Your task to perform on an android device: Add "logitech g933" to the cart on amazon.com, then select checkout. Image 0: 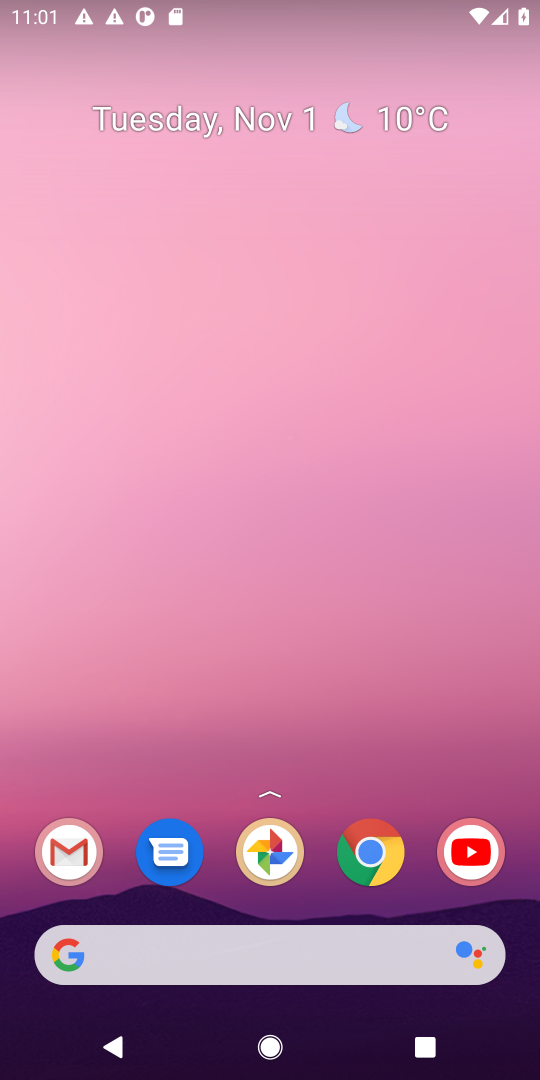
Step 0: click (57, 957)
Your task to perform on an android device: Add "logitech g933" to the cart on amazon.com, then select checkout. Image 1: 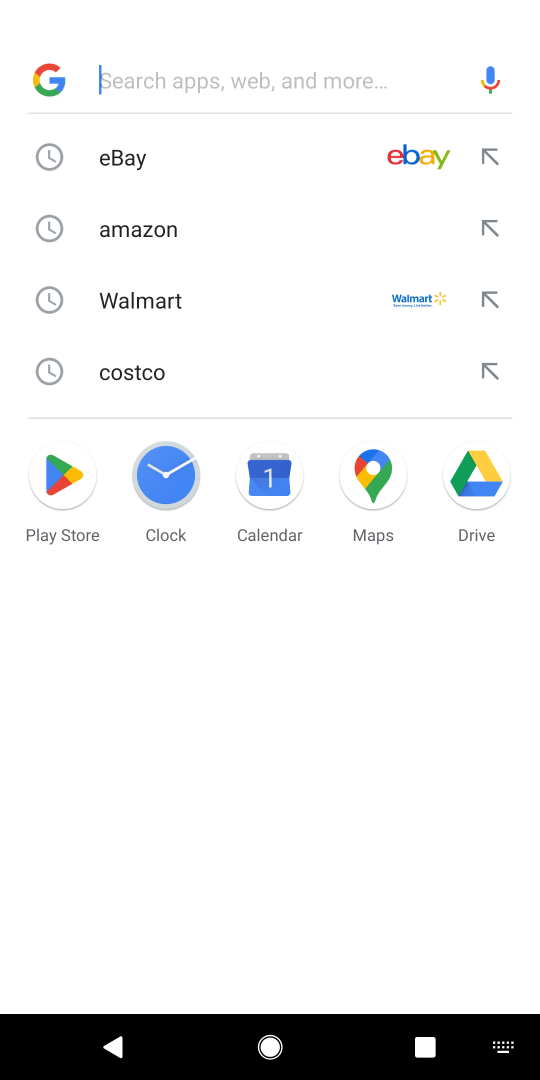
Step 1: click (133, 234)
Your task to perform on an android device: Add "logitech g933" to the cart on amazon.com, then select checkout. Image 2: 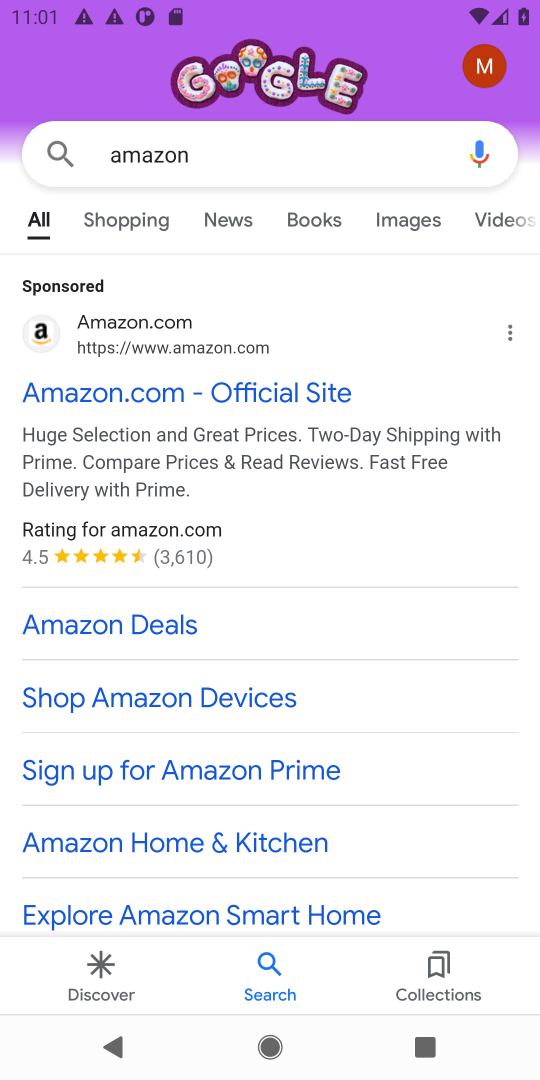
Step 2: click (273, 158)
Your task to perform on an android device: Add "logitech g933" to the cart on amazon.com, then select checkout. Image 3: 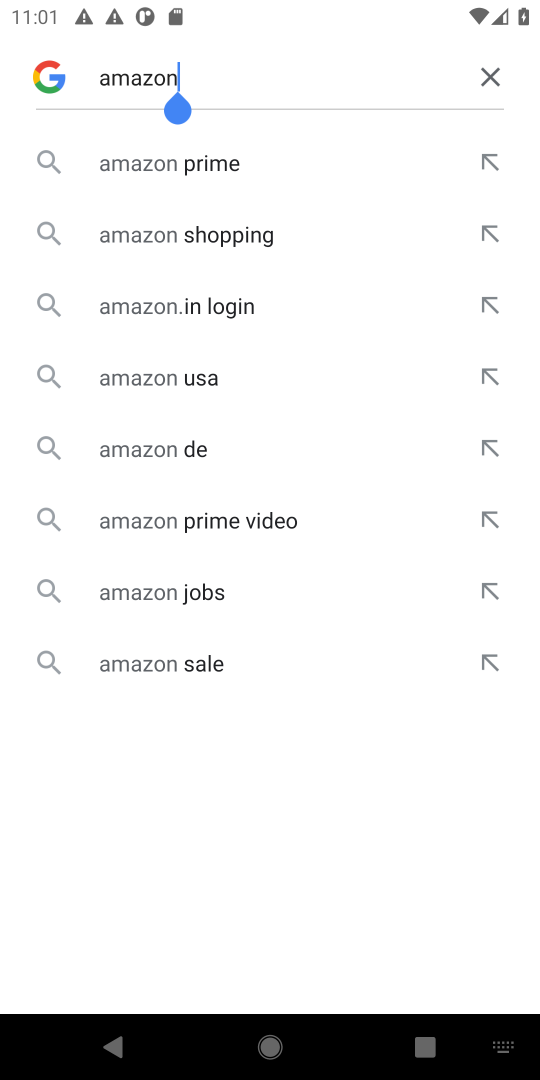
Step 3: click (486, 72)
Your task to perform on an android device: Add "logitech g933" to the cart on amazon.com, then select checkout. Image 4: 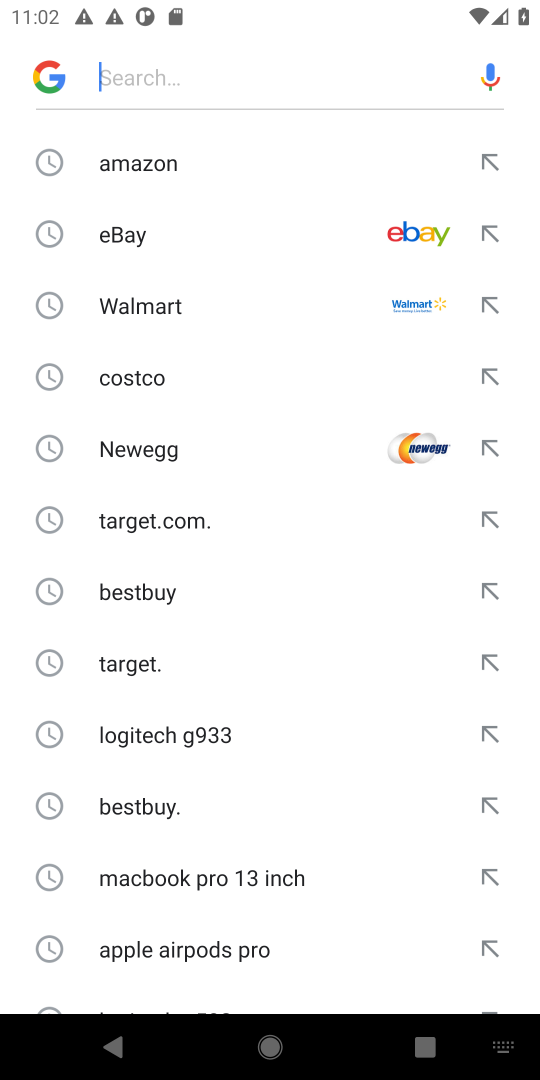
Step 4: click (113, 163)
Your task to perform on an android device: Add "logitech g933" to the cart on amazon.com, then select checkout. Image 5: 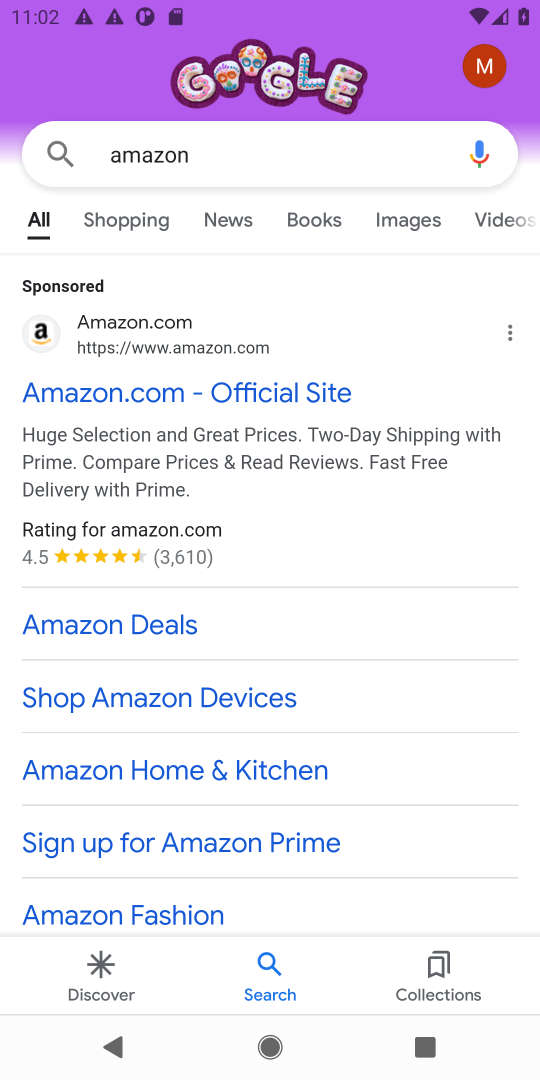
Step 5: click (152, 400)
Your task to perform on an android device: Add "logitech g933" to the cart on amazon.com, then select checkout. Image 6: 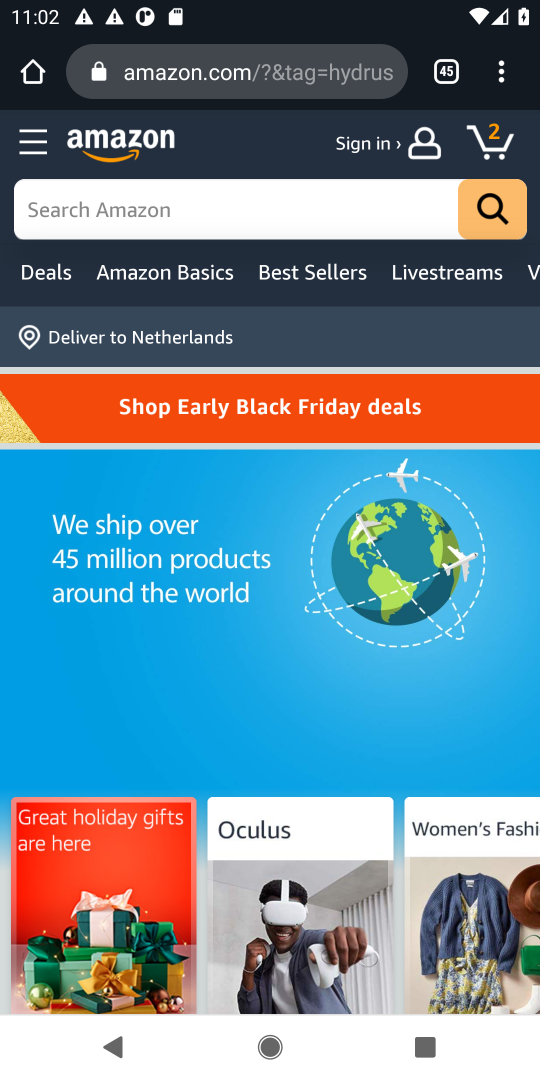
Step 6: type "logitech g933"
Your task to perform on an android device: Add "logitech g933" to the cart on amazon.com, then select checkout. Image 7: 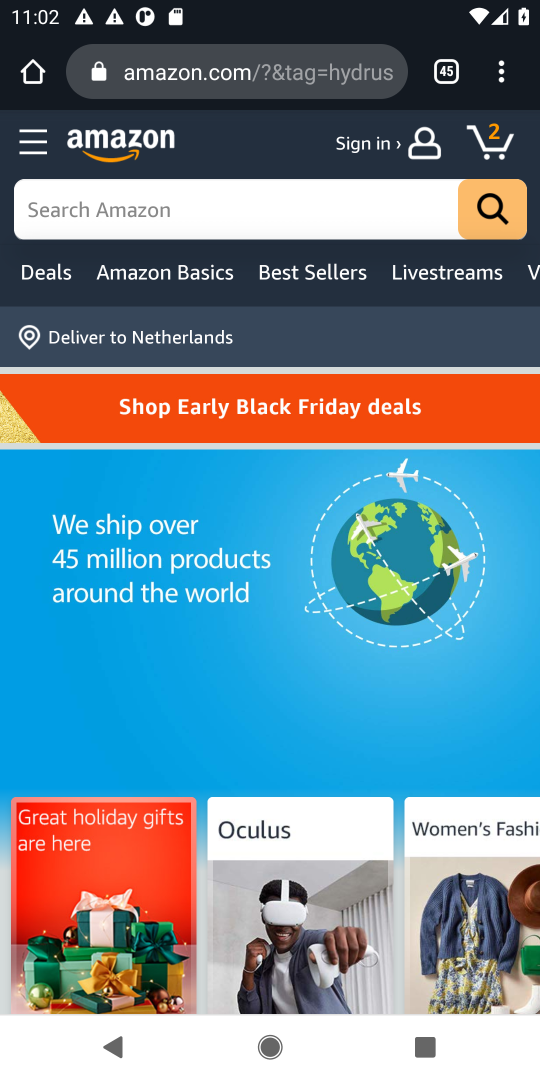
Step 7: click (60, 211)
Your task to perform on an android device: Add "logitech g933" to the cart on amazon.com, then select checkout. Image 8: 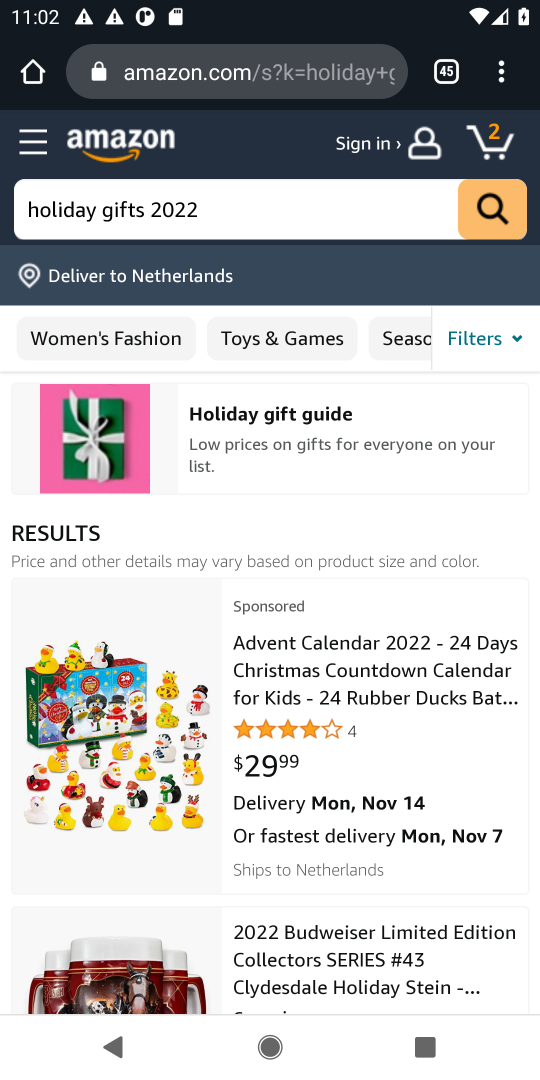
Step 8: click (181, 197)
Your task to perform on an android device: Add "logitech g933" to the cart on amazon.com, then select checkout. Image 9: 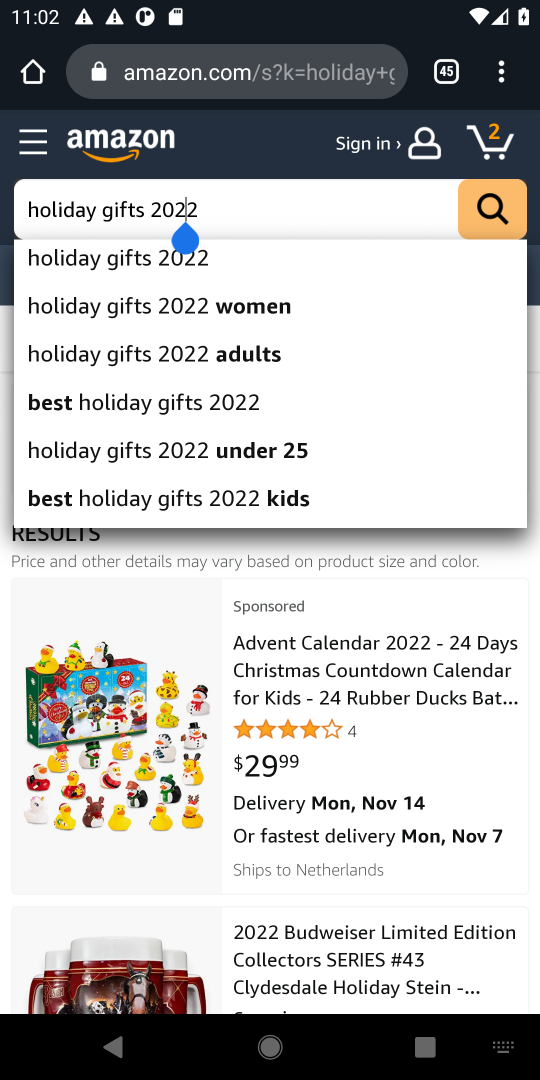
Step 9: click (204, 211)
Your task to perform on an android device: Add "logitech g933" to the cart on amazon.com, then select checkout. Image 10: 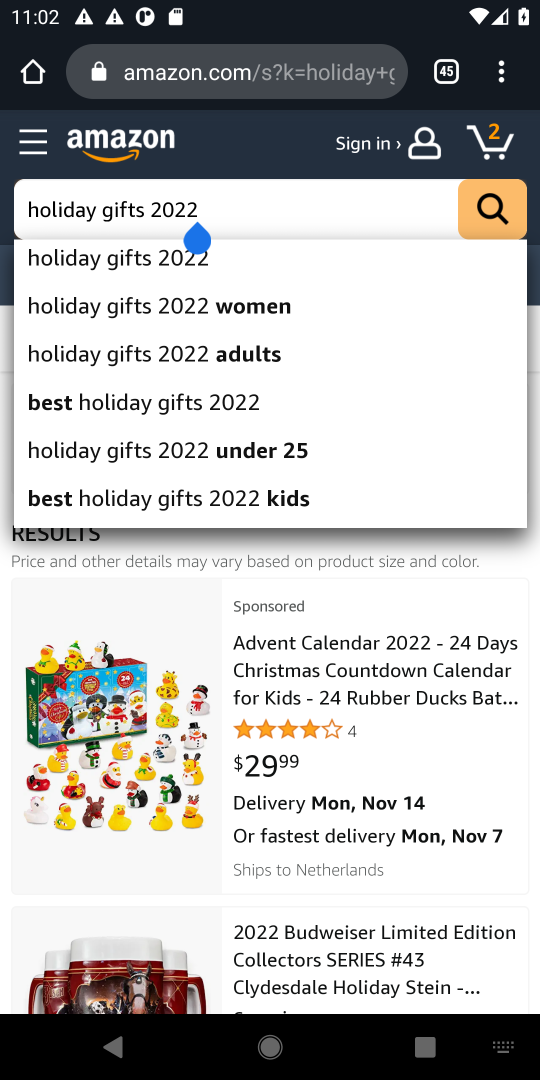
Step 10: click (182, 241)
Your task to perform on an android device: Add "logitech g933" to the cart on amazon.com, then select checkout. Image 11: 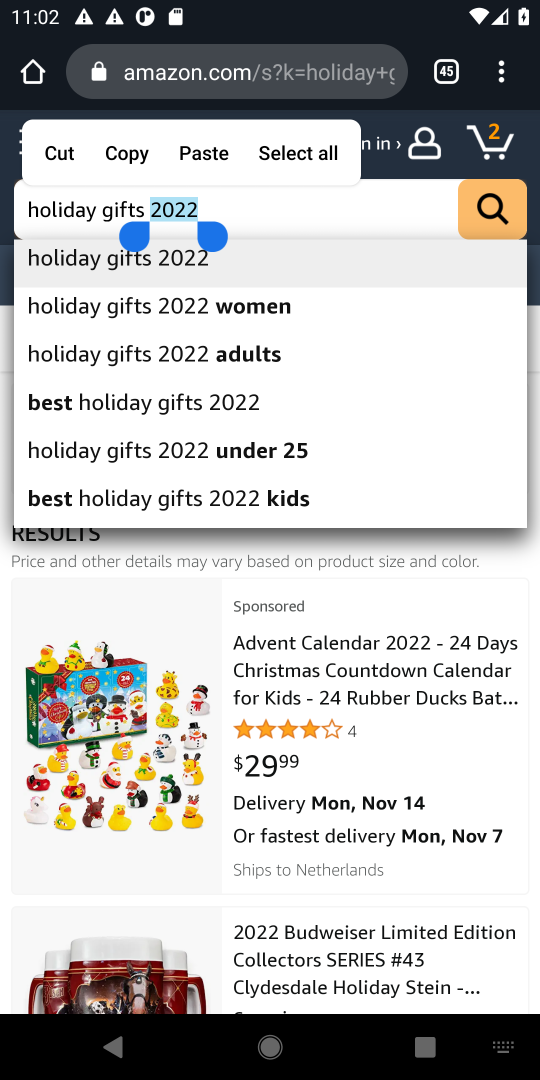
Step 11: drag from (144, 240) to (68, 236)
Your task to perform on an android device: Add "logitech g933" to the cart on amazon.com, then select checkout. Image 12: 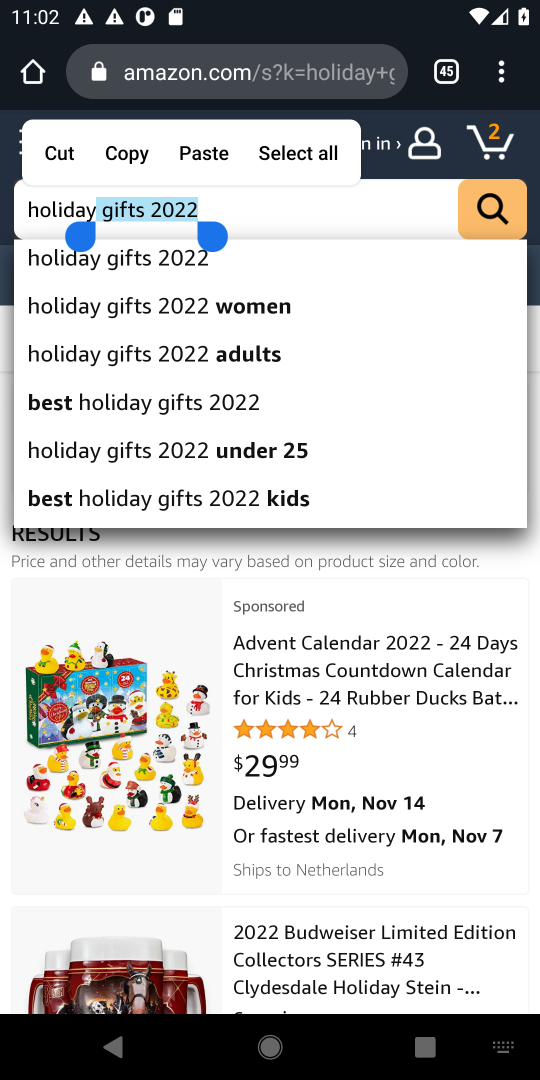
Step 12: drag from (80, 236) to (21, 213)
Your task to perform on an android device: Add "logitech g933" to the cart on amazon.com, then select checkout. Image 13: 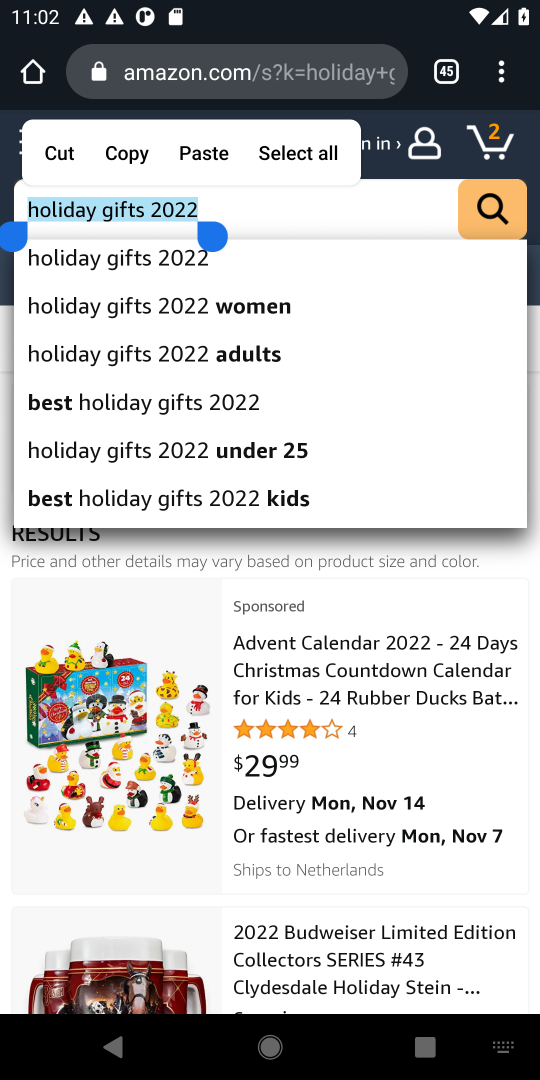
Step 13: click (60, 157)
Your task to perform on an android device: Add "logitech g933" to the cart on amazon.com, then select checkout. Image 14: 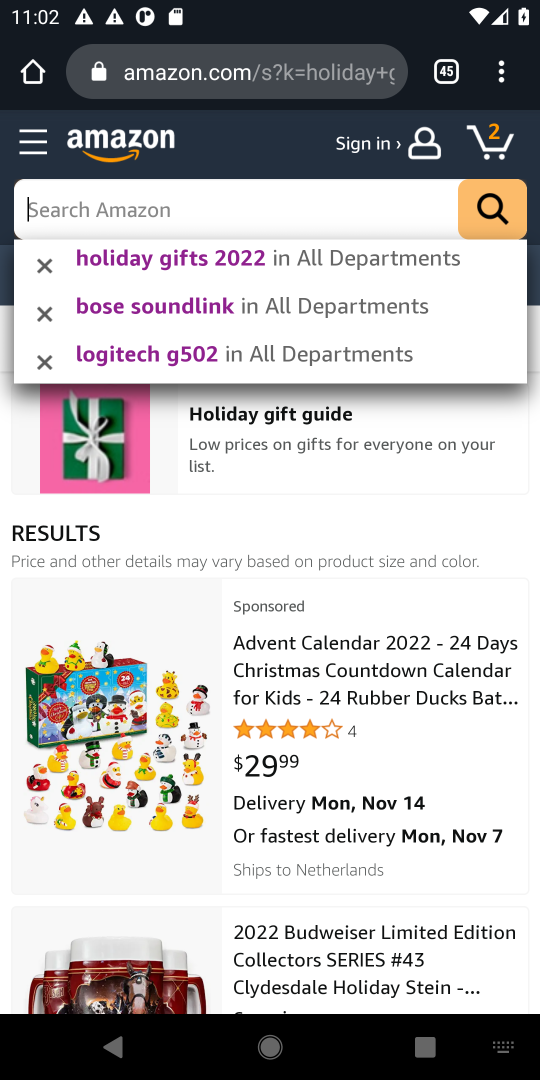
Step 14: type "logitech g933"
Your task to perform on an android device: Add "logitech g933" to the cart on amazon.com, then select checkout. Image 15: 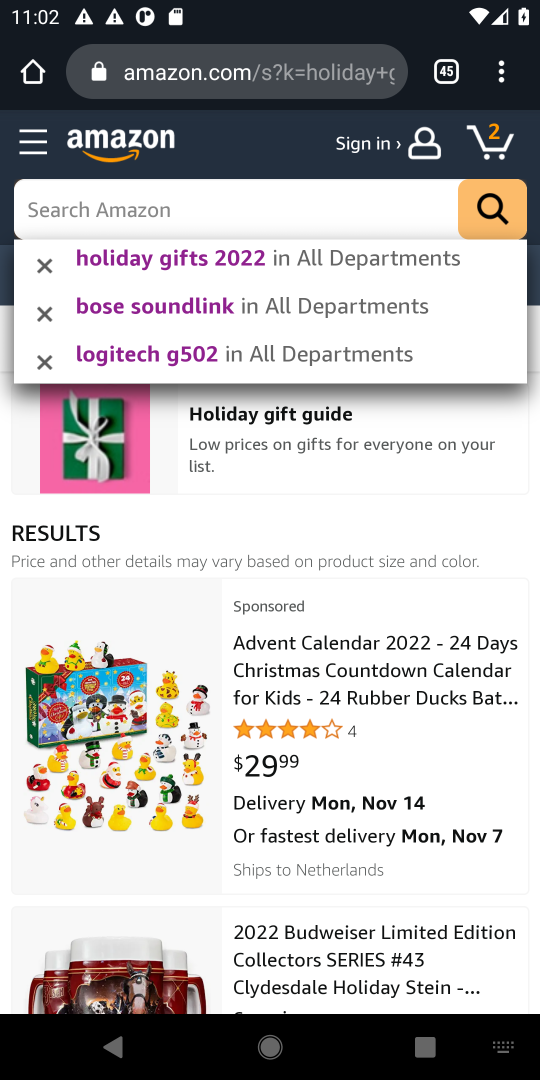
Step 15: click (90, 207)
Your task to perform on an android device: Add "logitech g933" to the cart on amazon.com, then select checkout. Image 16: 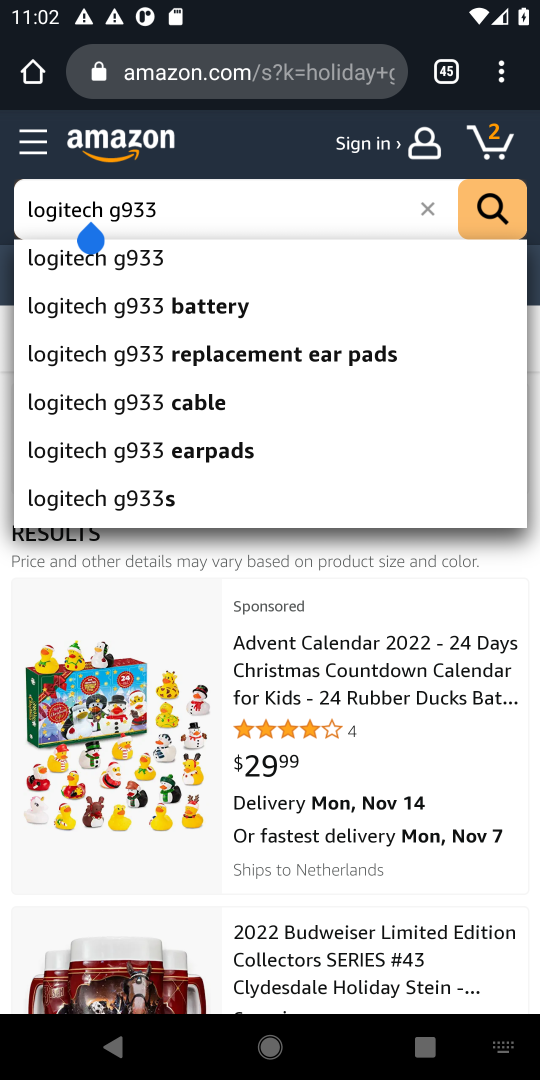
Step 16: click (123, 257)
Your task to perform on an android device: Add "logitech g933" to the cart on amazon.com, then select checkout. Image 17: 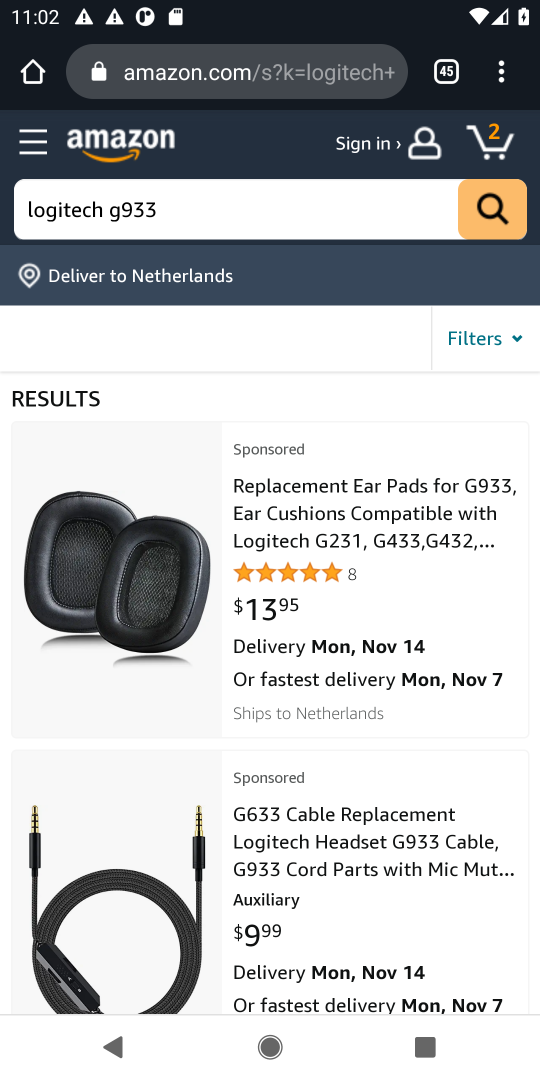
Step 17: drag from (370, 912) to (289, 362)
Your task to perform on an android device: Add "logitech g933" to the cart on amazon.com, then select checkout. Image 18: 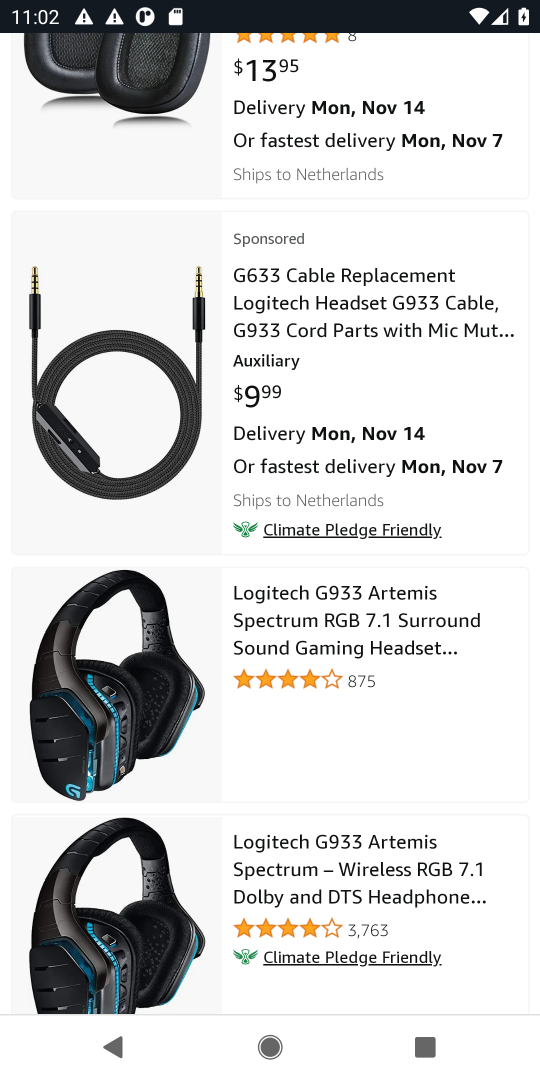
Step 18: click (350, 591)
Your task to perform on an android device: Add "logitech g933" to the cart on amazon.com, then select checkout. Image 19: 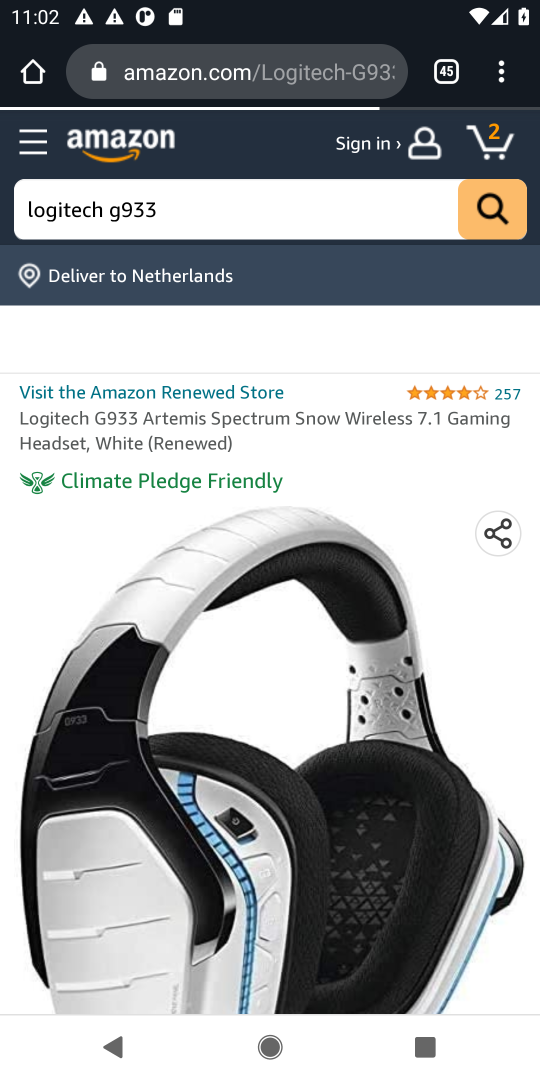
Step 19: task complete